Your task to perform on an android device: turn pop-ups off in chrome Image 0: 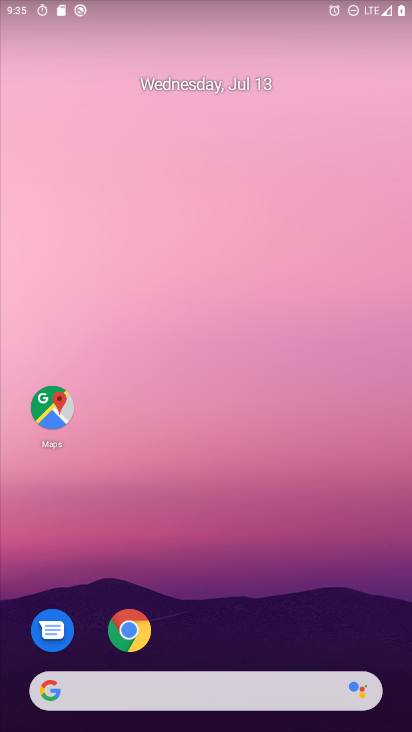
Step 0: drag from (382, 671) to (253, 53)
Your task to perform on an android device: turn pop-ups off in chrome Image 1: 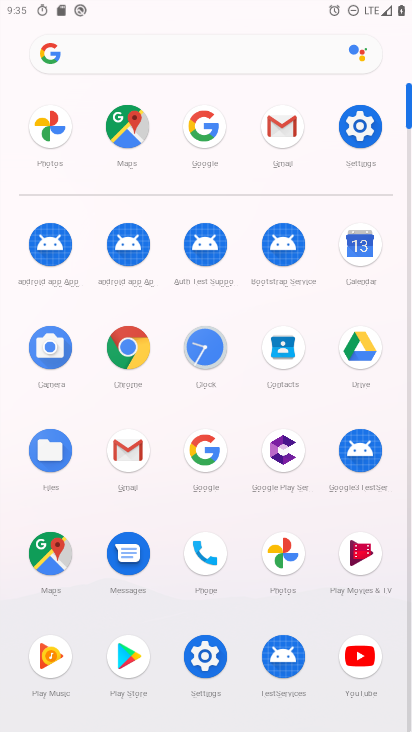
Step 1: click (119, 351)
Your task to perform on an android device: turn pop-ups off in chrome Image 2: 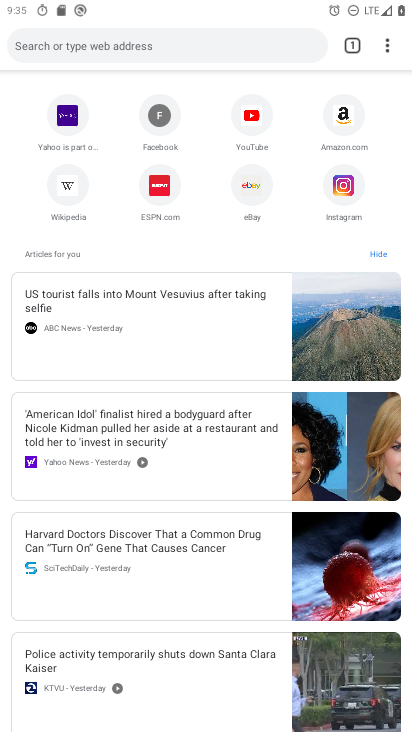
Step 2: click (393, 43)
Your task to perform on an android device: turn pop-ups off in chrome Image 3: 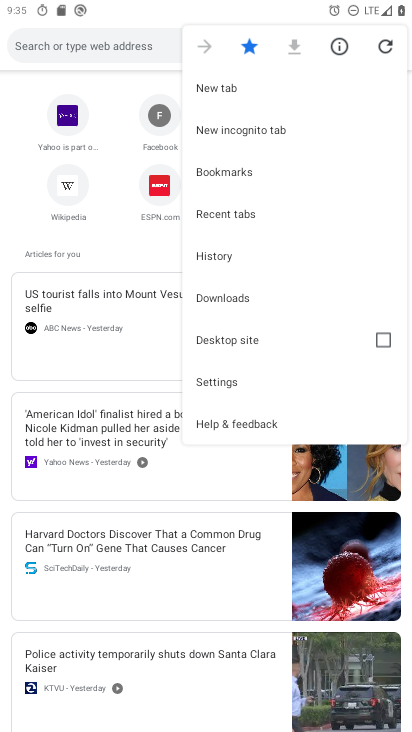
Step 3: click (233, 384)
Your task to perform on an android device: turn pop-ups off in chrome Image 4: 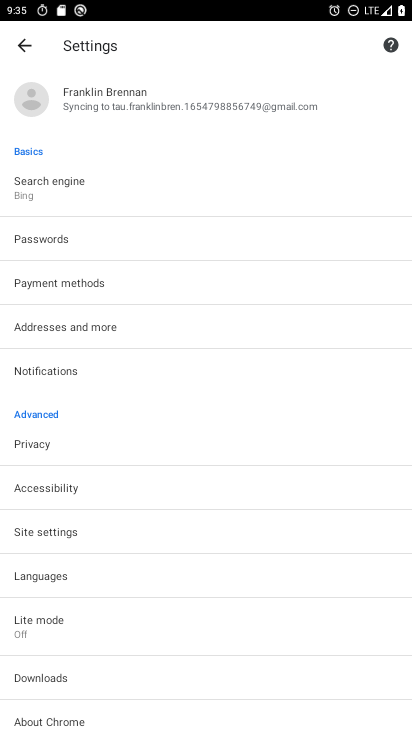
Step 4: click (114, 530)
Your task to perform on an android device: turn pop-ups off in chrome Image 5: 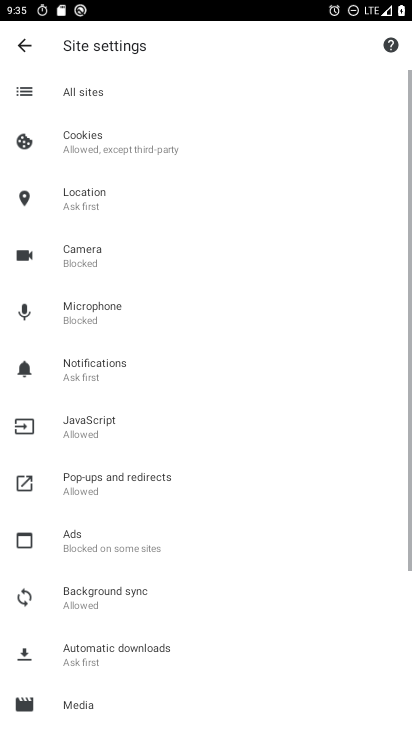
Step 5: click (128, 499)
Your task to perform on an android device: turn pop-ups off in chrome Image 6: 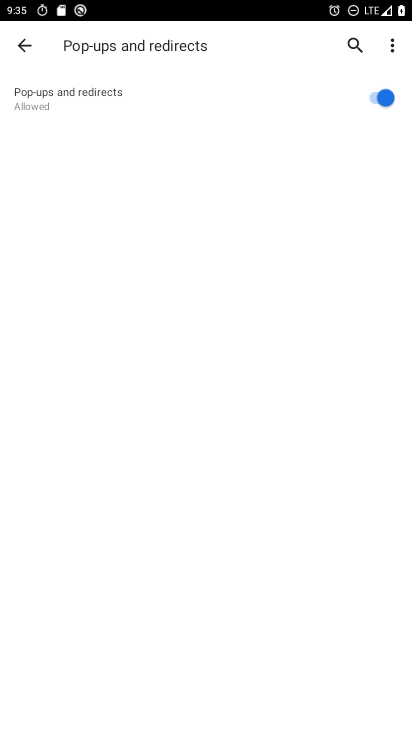
Step 6: click (350, 98)
Your task to perform on an android device: turn pop-ups off in chrome Image 7: 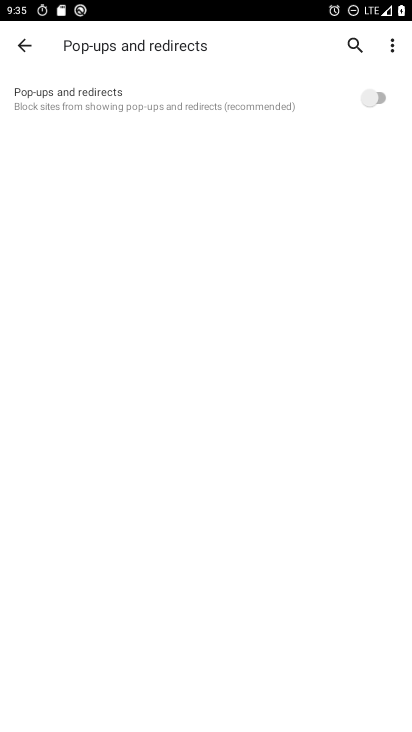
Step 7: task complete